Your task to perform on an android device: turn pop-ups off in chrome Image 0: 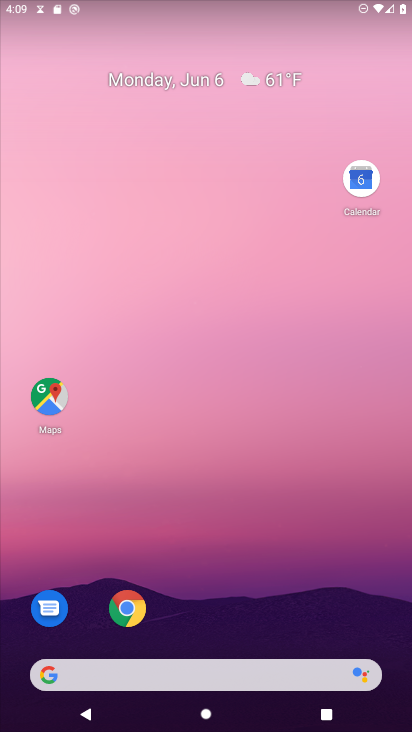
Step 0: click (120, 604)
Your task to perform on an android device: turn pop-ups off in chrome Image 1: 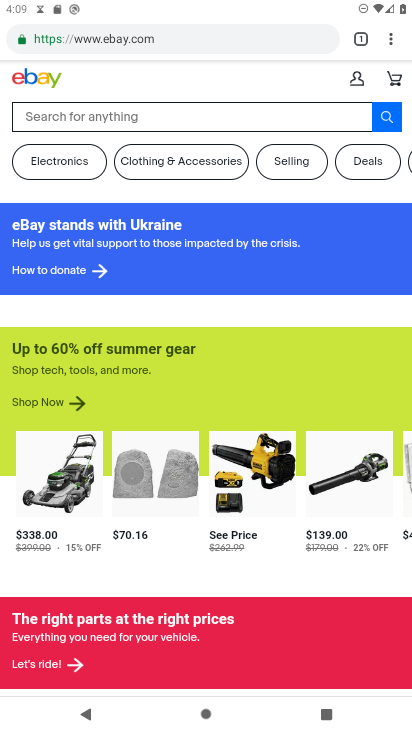
Step 1: click (400, 34)
Your task to perform on an android device: turn pop-ups off in chrome Image 2: 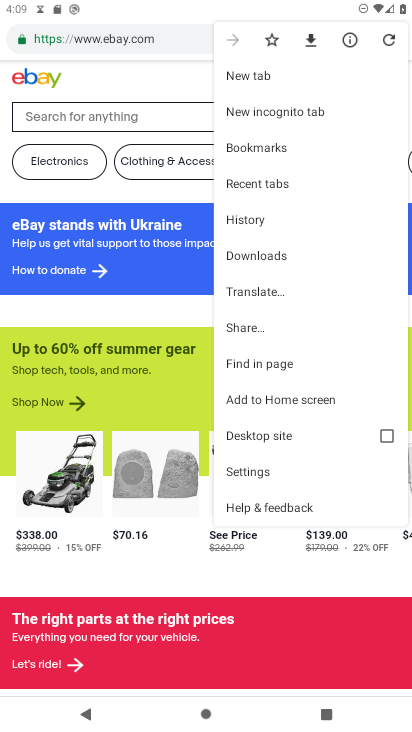
Step 2: click (271, 471)
Your task to perform on an android device: turn pop-ups off in chrome Image 3: 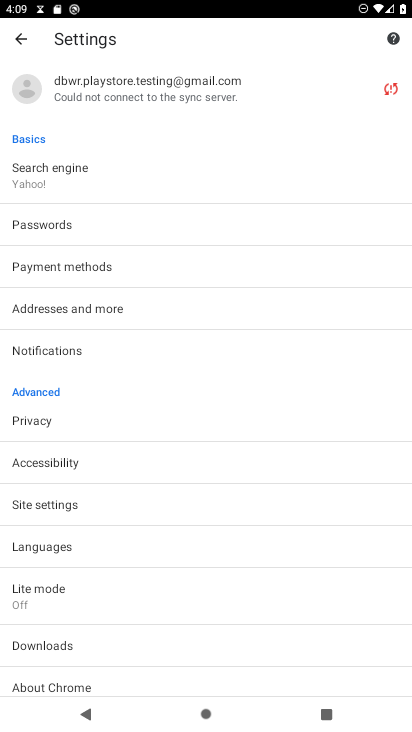
Step 3: click (60, 513)
Your task to perform on an android device: turn pop-ups off in chrome Image 4: 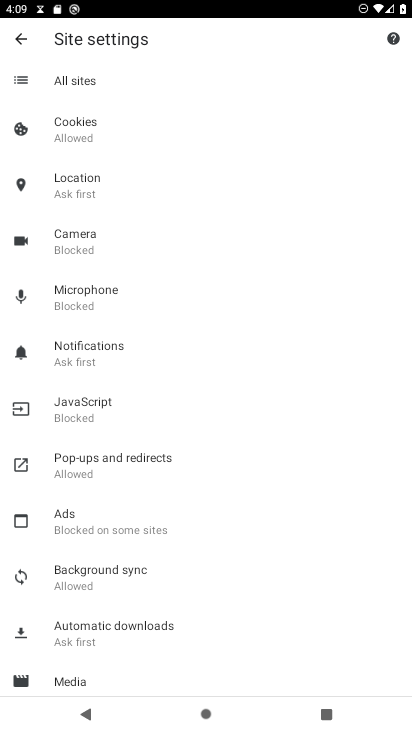
Step 4: click (98, 466)
Your task to perform on an android device: turn pop-ups off in chrome Image 5: 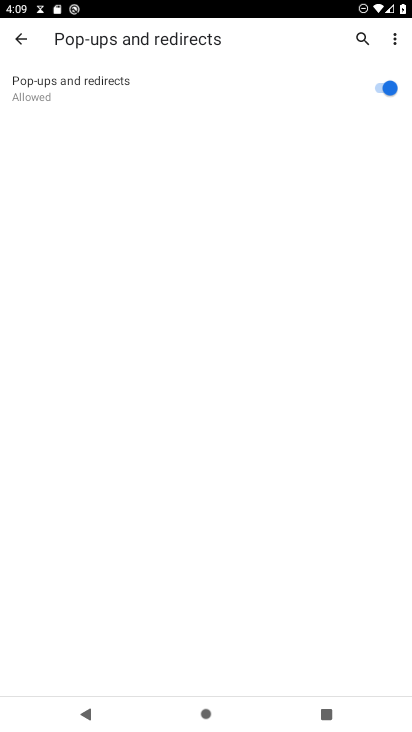
Step 5: click (381, 94)
Your task to perform on an android device: turn pop-ups off in chrome Image 6: 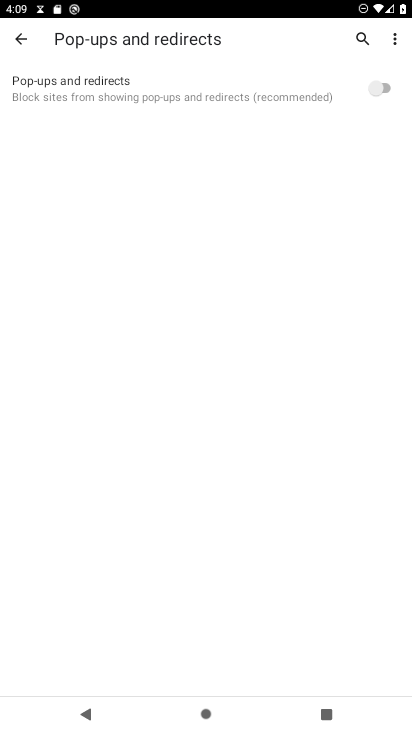
Step 6: task complete